Your task to perform on an android device: Open Yahoo.com Image 0: 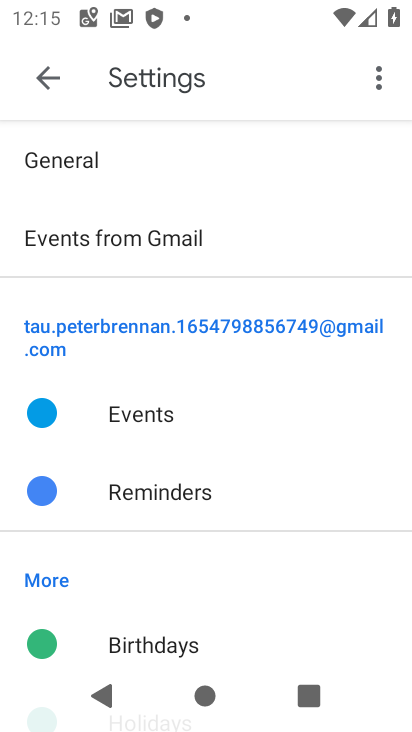
Step 0: press back button
Your task to perform on an android device: Open Yahoo.com Image 1: 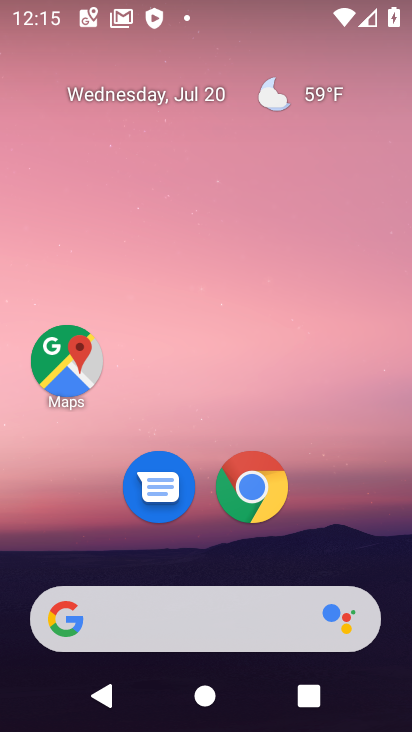
Step 1: click (247, 489)
Your task to perform on an android device: Open Yahoo.com Image 2: 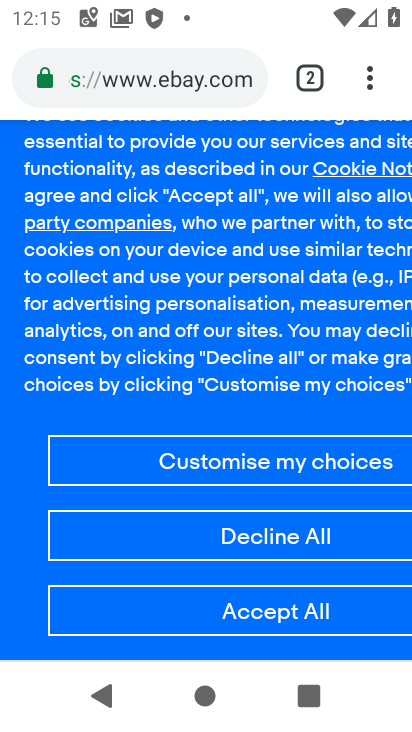
Step 2: click (313, 86)
Your task to perform on an android device: Open Yahoo.com Image 3: 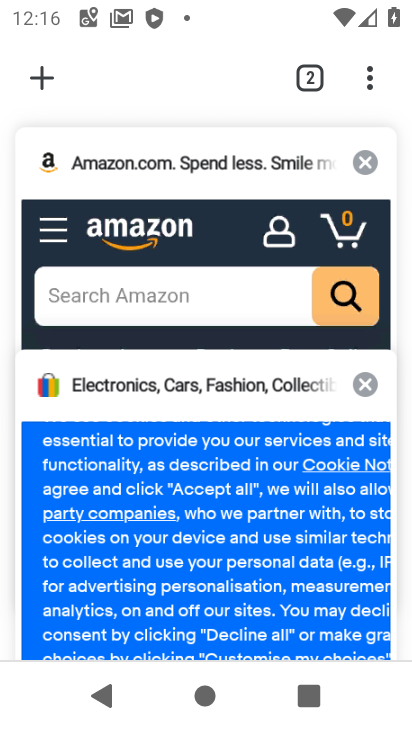
Step 3: click (30, 80)
Your task to perform on an android device: Open Yahoo.com Image 4: 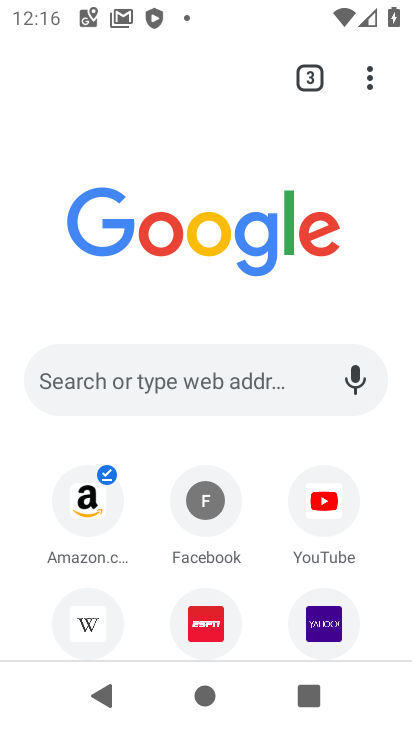
Step 4: click (126, 377)
Your task to perform on an android device: Open Yahoo.com Image 5: 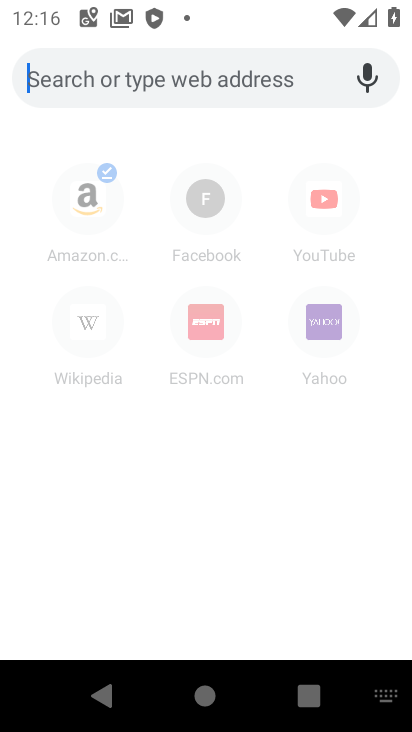
Step 5: type "yahoo.com"
Your task to perform on an android device: Open Yahoo.com Image 6: 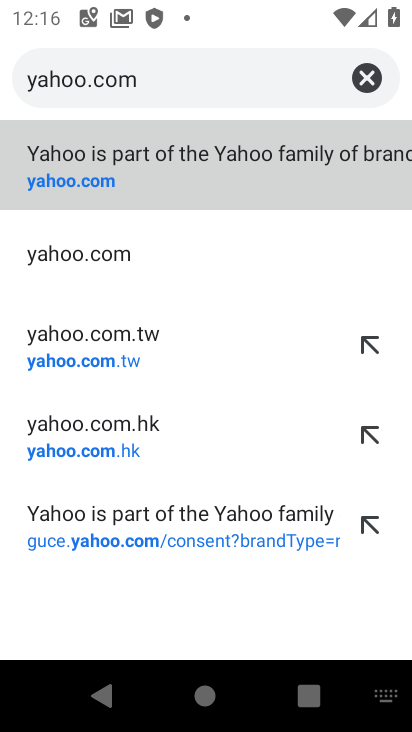
Step 6: click (110, 178)
Your task to perform on an android device: Open Yahoo.com Image 7: 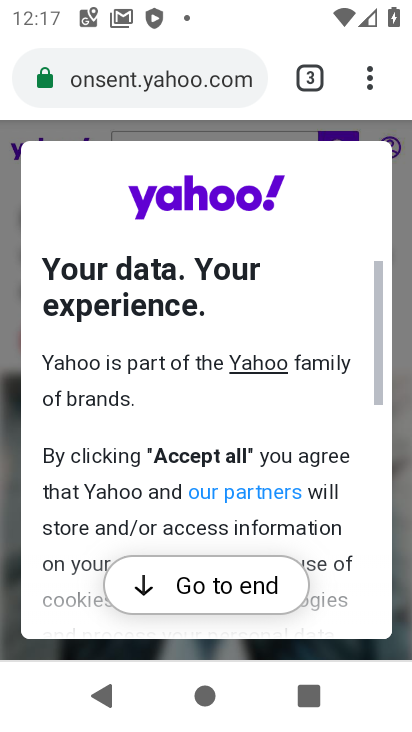
Step 7: task complete